Your task to perform on an android device: turn notification dots off Image 0: 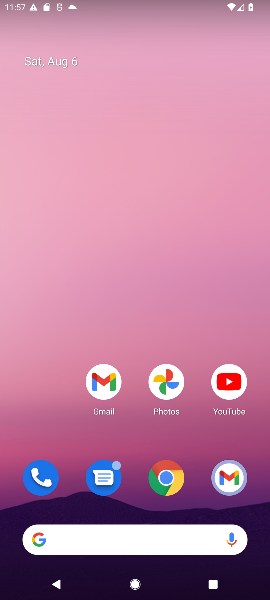
Step 0: drag from (117, 530) to (143, 226)
Your task to perform on an android device: turn notification dots off Image 1: 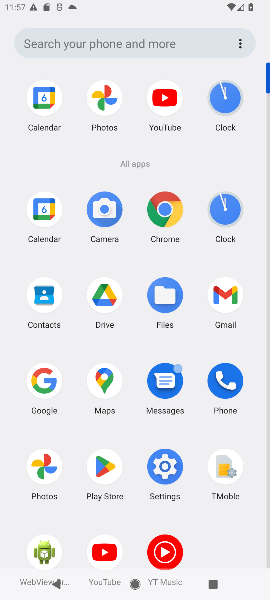
Step 1: click (168, 466)
Your task to perform on an android device: turn notification dots off Image 2: 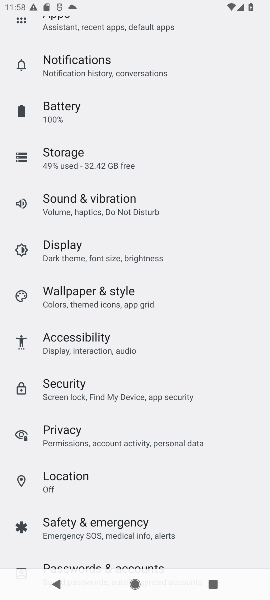
Step 2: click (78, 63)
Your task to perform on an android device: turn notification dots off Image 3: 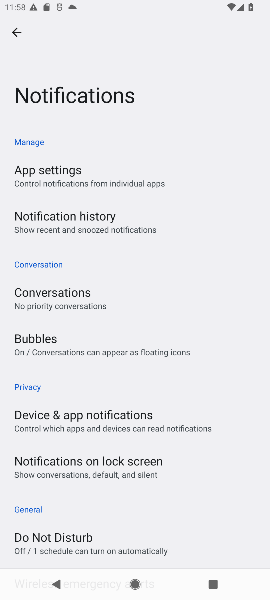
Step 3: drag from (82, 530) to (82, 270)
Your task to perform on an android device: turn notification dots off Image 4: 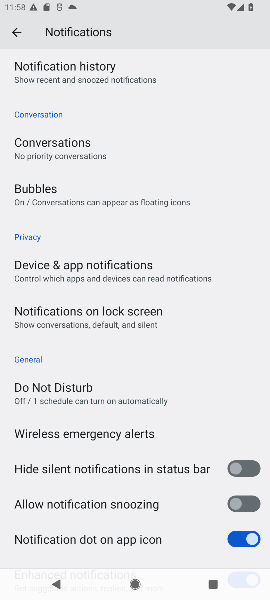
Step 4: drag from (91, 524) to (126, 262)
Your task to perform on an android device: turn notification dots off Image 5: 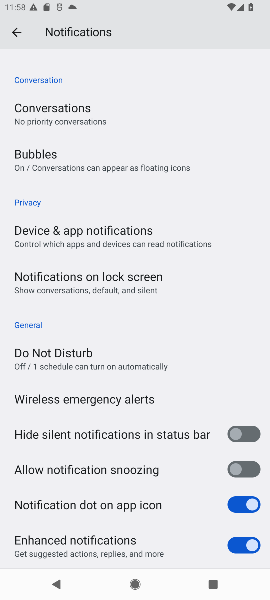
Step 5: click (238, 505)
Your task to perform on an android device: turn notification dots off Image 6: 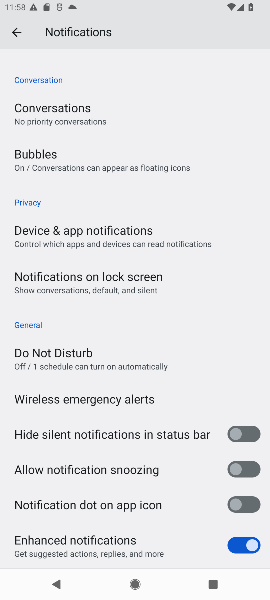
Step 6: task complete